Your task to perform on an android device: Open location settings Image 0: 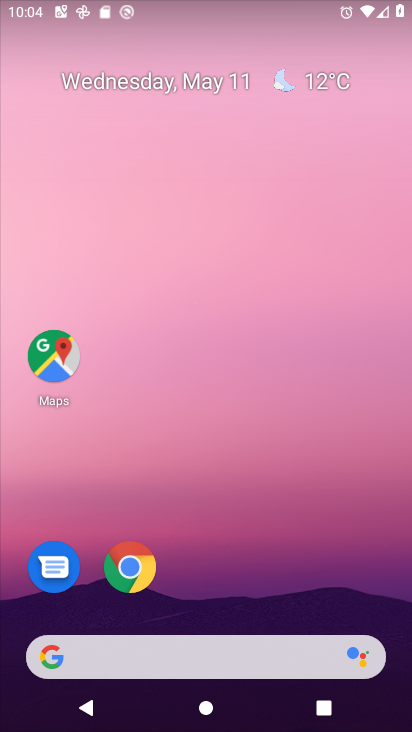
Step 0: drag from (286, 501) to (250, 69)
Your task to perform on an android device: Open location settings Image 1: 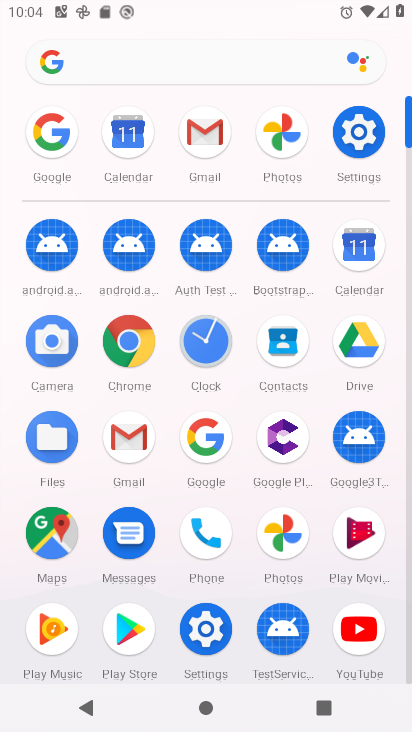
Step 1: click (345, 132)
Your task to perform on an android device: Open location settings Image 2: 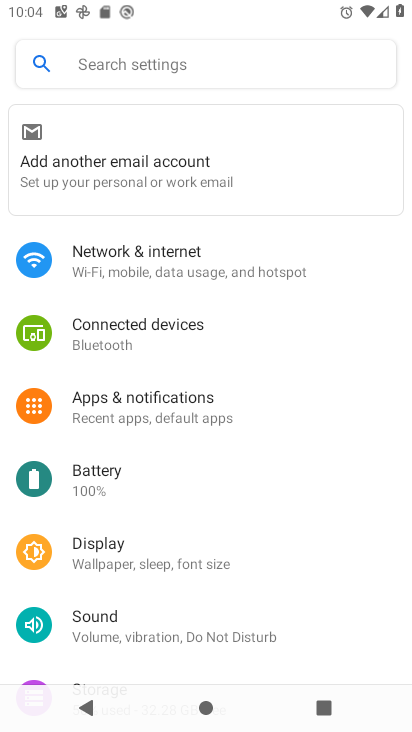
Step 2: drag from (219, 597) to (267, 260)
Your task to perform on an android device: Open location settings Image 3: 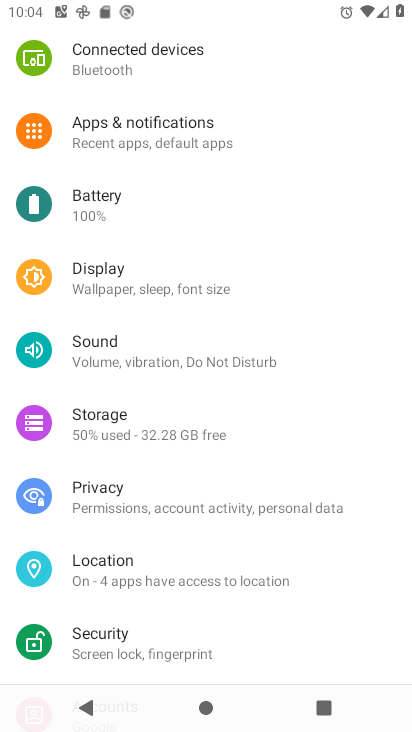
Step 3: click (167, 572)
Your task to perform on an android device: Open location settings Image 4: 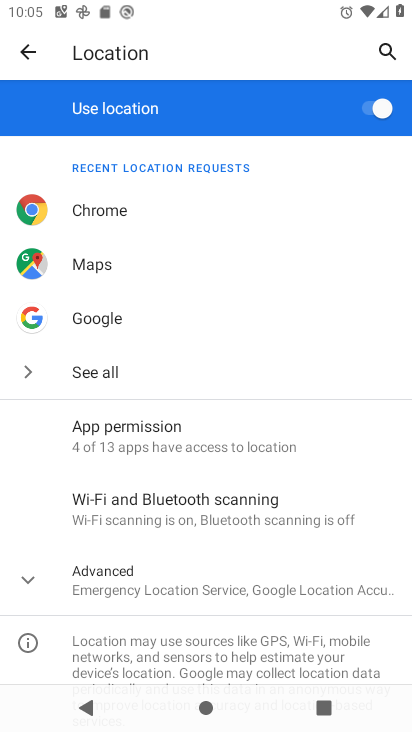
Step 4: click (241, 582)
Your task to perform on an android device: Open location settings Image 5: 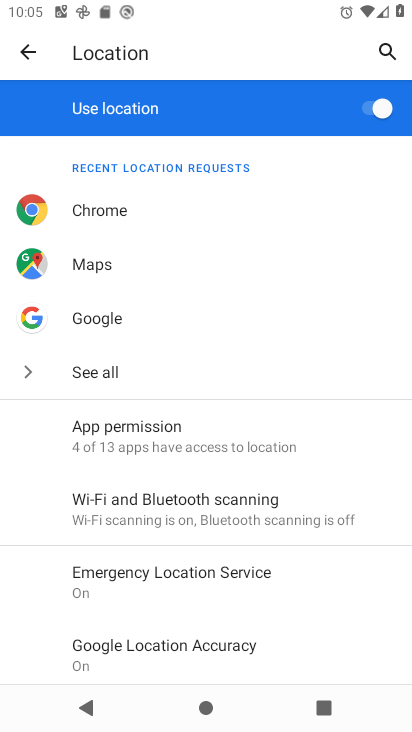
Step 5: task complete